Your task to perform on an android device: snooze an email in the gmail app Image 0: 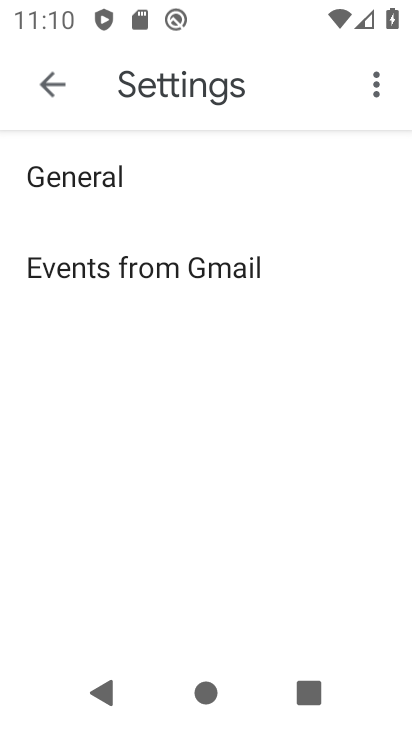
Step 0: press home button
Your task to perform on an android device: snooze an email in the gmail app Image 1: 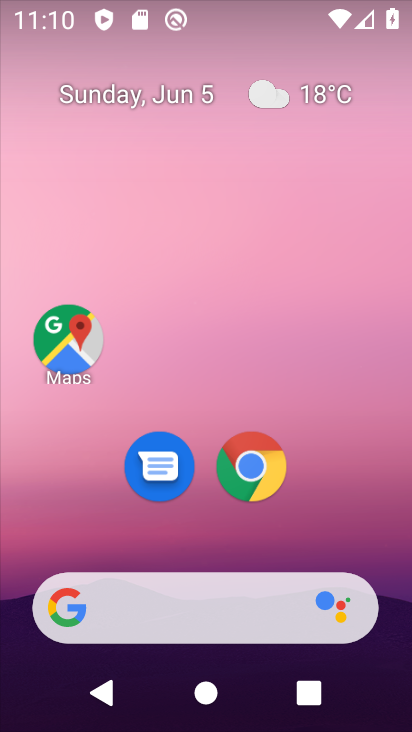
Step 1: drag from (331, 528) to (351, 176)
Your task to perform on an android device: snooze an email in the gmail app Image 2: 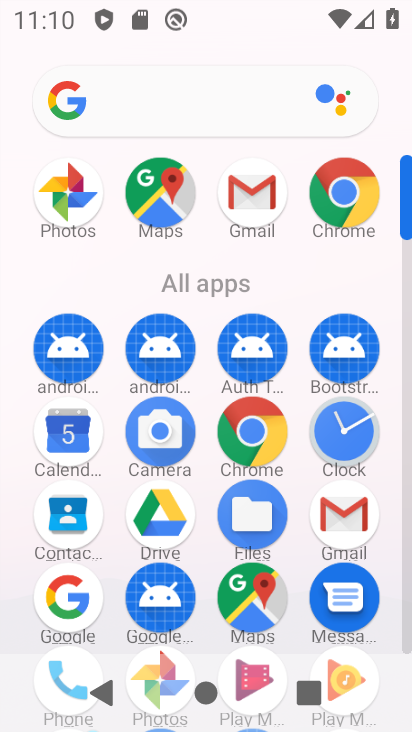
Step 2: click (327, 521)
Your task to perform on an android device: snooze an email in the gmail app Image 3: 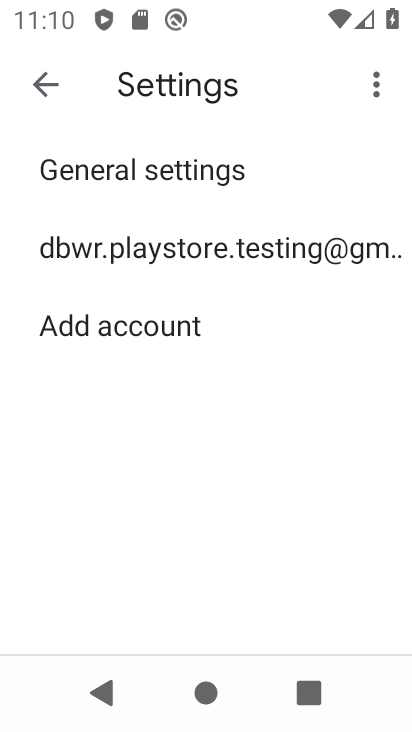
Step 3: click (313, 262)
Your task to perform on an android device: snooze an email in the gmail app Image 4: 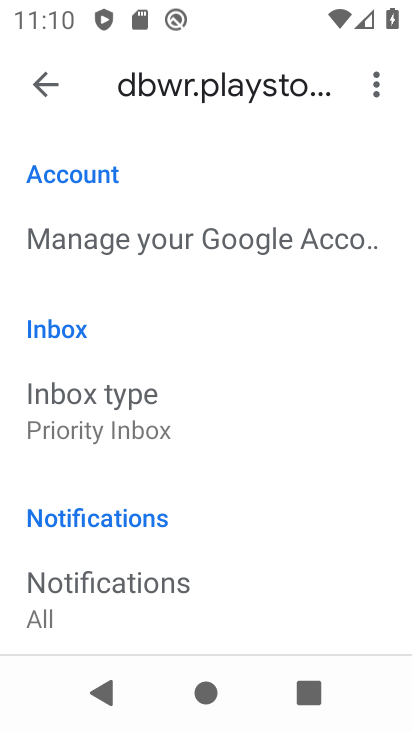
Step 4: drag from (242, 520) to (290, 208)
Your task to perform on an android device: snooze an email in the gmail app Image 5: 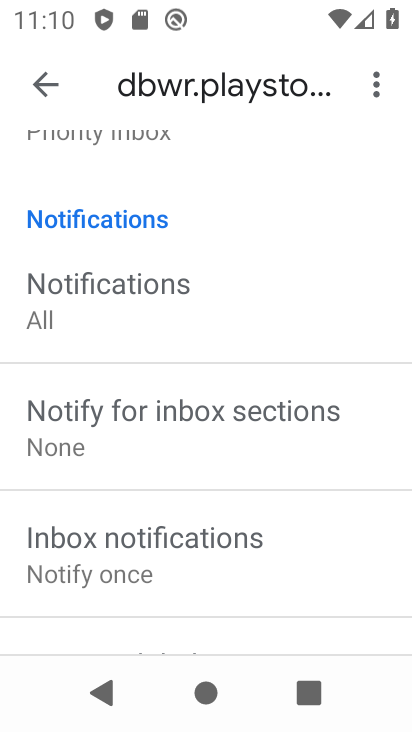
Step 5: drag from (309, 561) to (325, 261)
Your task to perform on an android device: snooze an email in the gmail app Image 6: 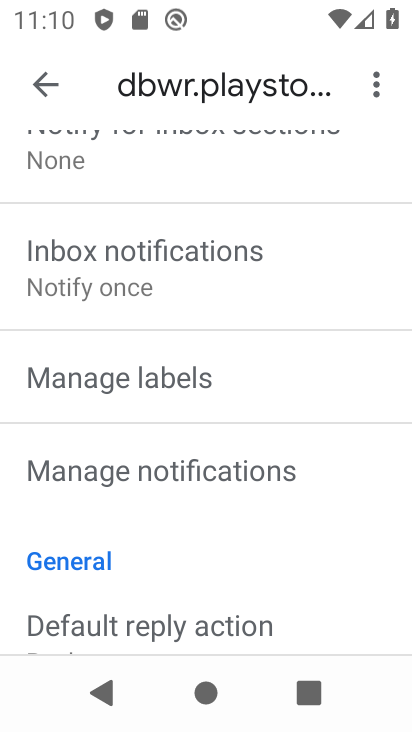
Step 6: drag from (296, 552) to (311, 237)
Your task to perform on an android device: snooze an email in the gmail app Image 7: 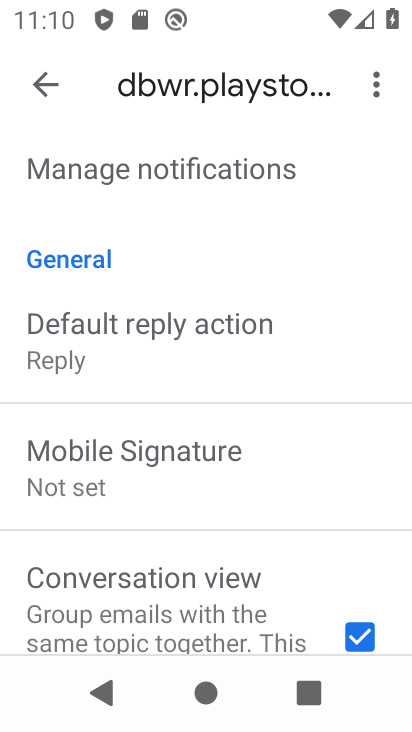
Step 7: drag from (273, 493) to (321, 222)
Your task to perform on an android device: snooze an email in the gmail app Image 8: 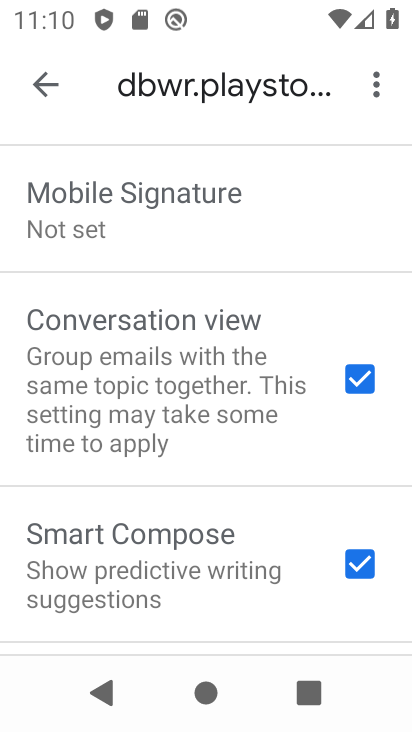
Step 8: drag from (250, 568) to (317, 203)
Your task to perform on an android device: snooze an email in the gmail app Image 9: 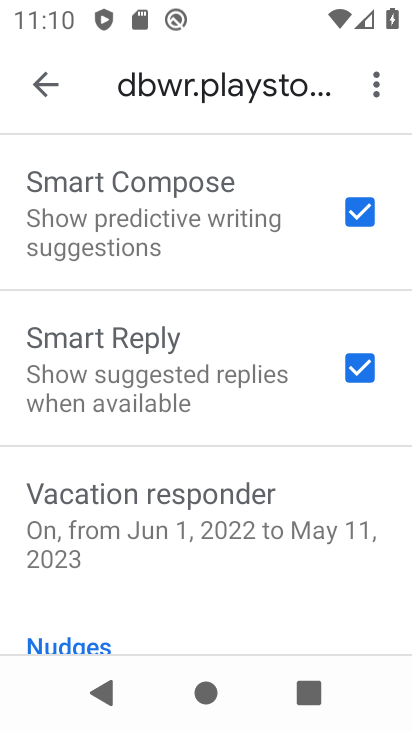
Step 9: drag from (223, 162) to (222, 610)
Your task to perform on an android device: snooze an email in the gmail app Image 10: 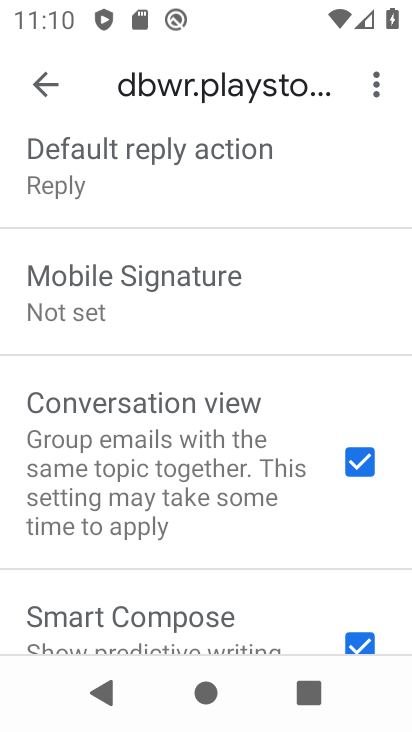
Step 10: click (56, 103)
Your task to perform on an android device: snooze an email in the gmail app Image 11: 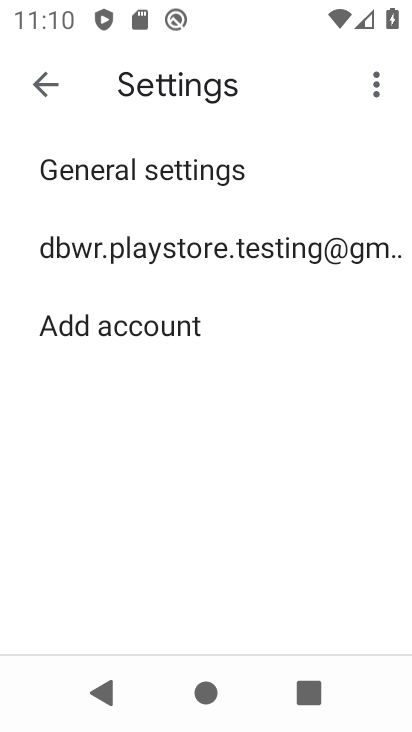
Step 11: click (57, 102)
Your task to perform on an android device: snooze an email in the gmail app Image 12: 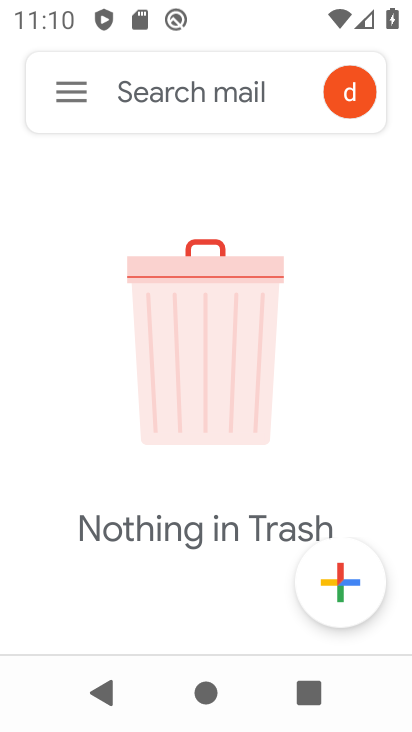
Step 12: click (58, 90)
Your task to perform on an android device: snooze an email in the gmail app Image 13: 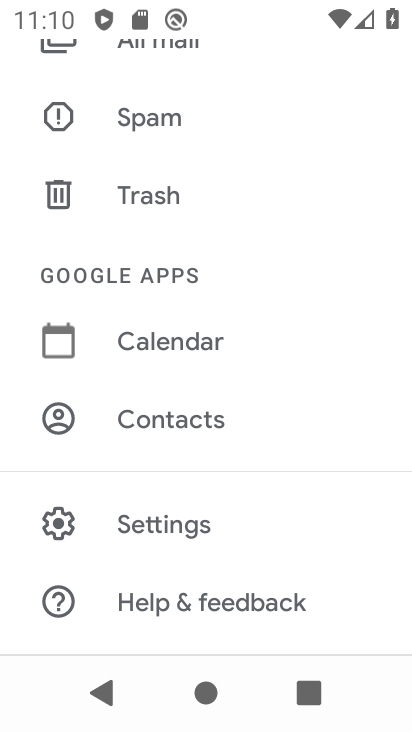
Step 13: drag from (201, 162) to (158, 666)
Your task to perform on an android device: snooze an email in the gmail app Image 14: 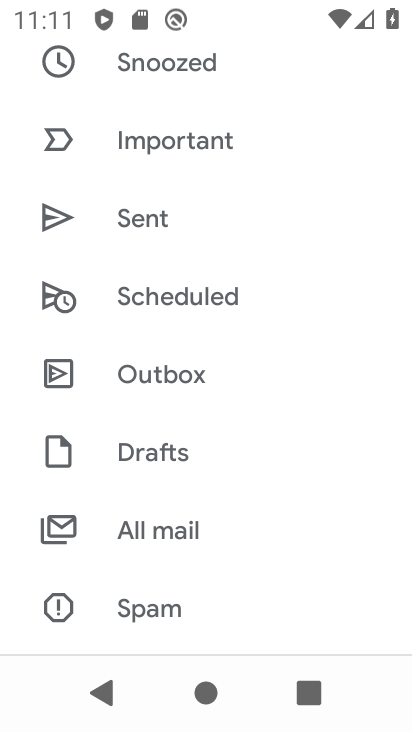
Step 14: click (168, 68)
Your task to perform on an android device: snooze an email in the gmail app Image 15: 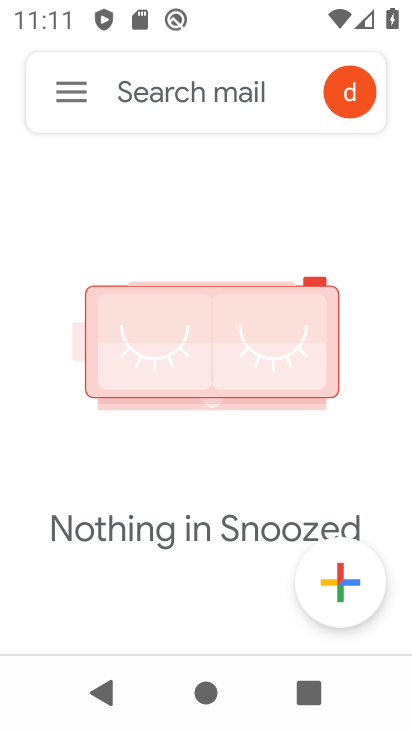
Step 15: task complete